Your task to perform on an android device: Do I have any events tomorrow? Image 0: 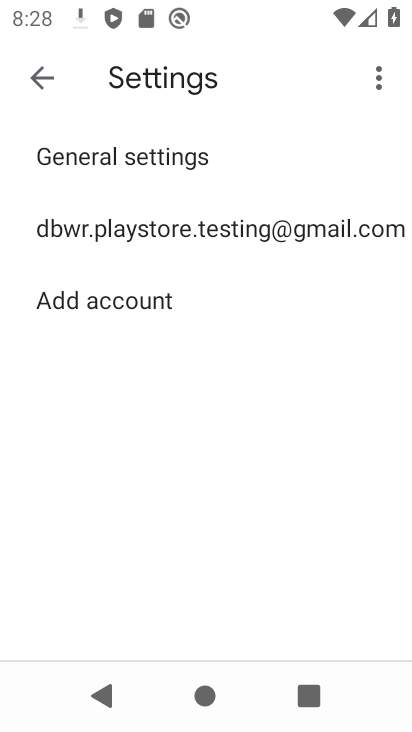
Step 0: press home button
Your task to perform on an android device: Do I have any events tomorrow? Image 1: 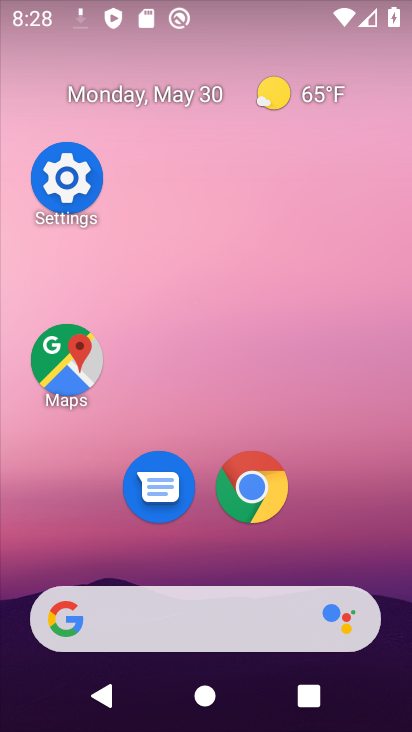
Step 1: drag from (334, 547) to (334, 205)
Your task to perform on an android device: Do I have any events tomorrow? Image 2: 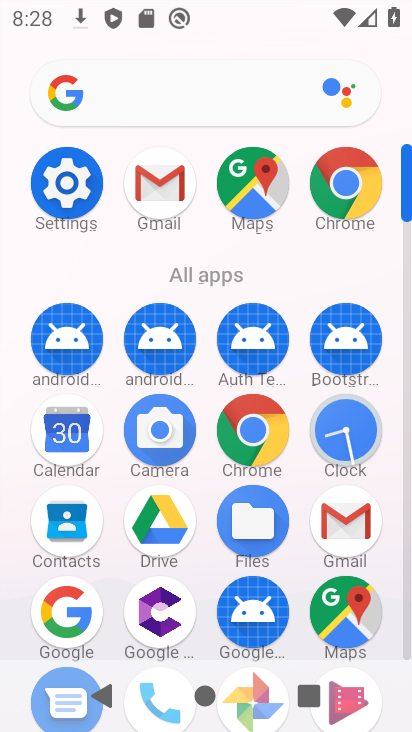
Step 2: drag from (69, 438) to (153, 203)
Your task to perform on an android device: Do I have any events tomorrow? Image 3: 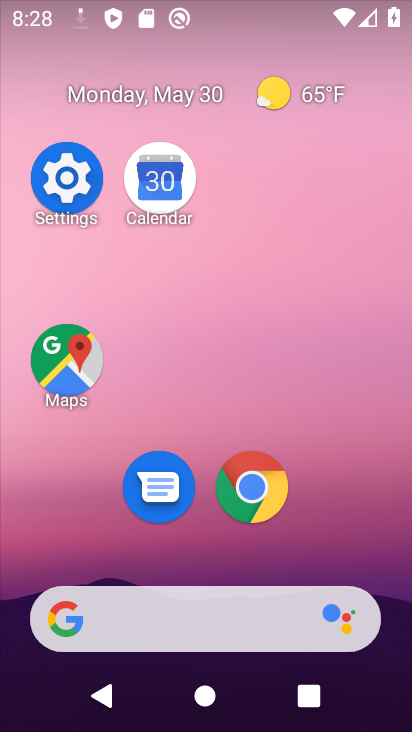
Step 3: click (158, 217)
Your task to perform on an android device: Do I have any events tomorrow? Image 4: 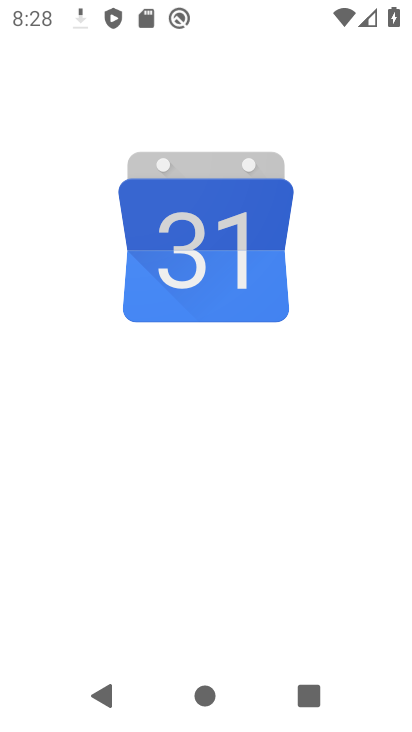
Step 4: click (168, 187)
Your task to perform on an android device: Do I have any events tomorrow? Image 5: 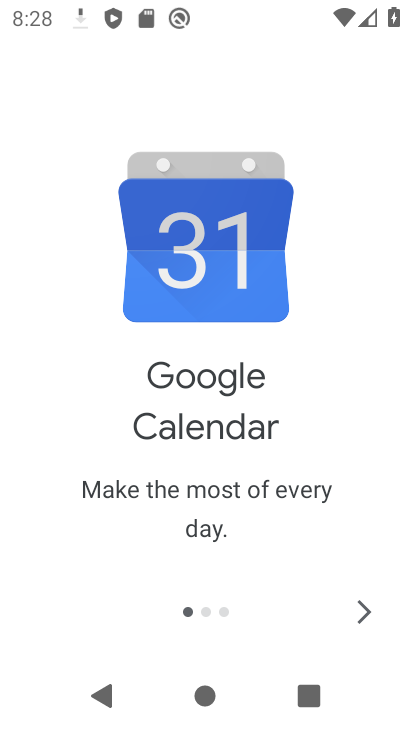
Step 5: click (370, 621)
Your task to perform on an android device: Do I have any events tomorrow? Image 6: 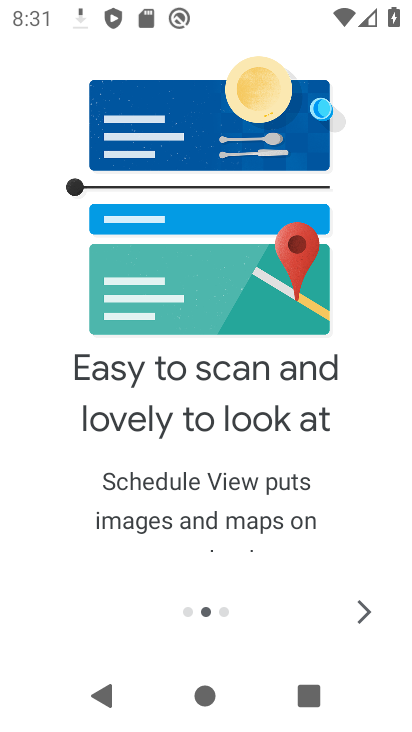
Step 6: click (363, 622)
Your task to perform on an android device: Do I have any events tomorrow? Image 7: 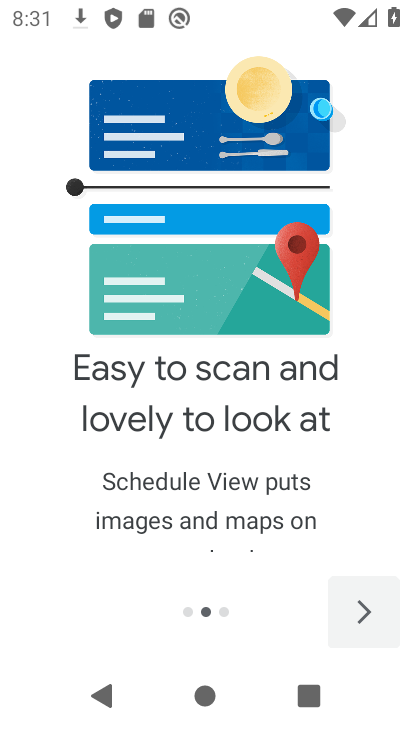
Step 7: click (363, 622)
Your task to perform on an android device: Do I have any events tomorrow? Image 8: 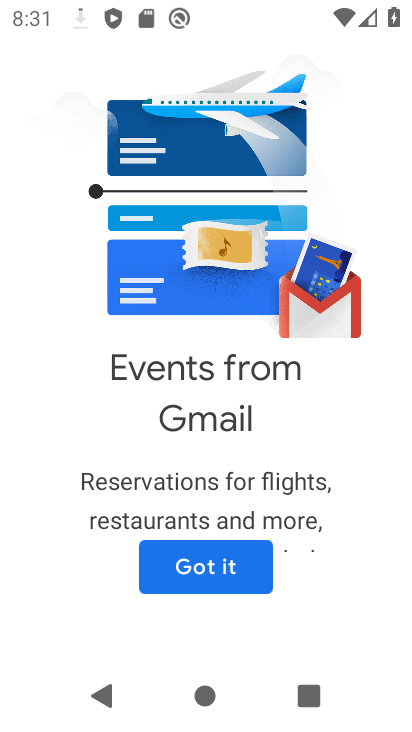
Step 8: click (185, 540)
Your task to perform on an android device: Do I have any events tomorrow? Image 9: 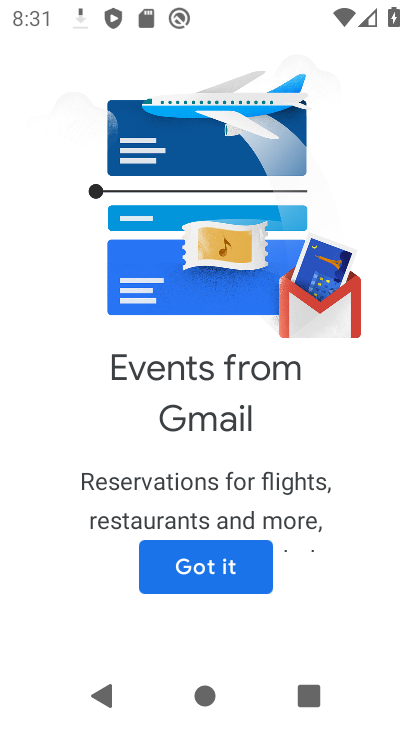
Step 9: click (199, 567)
Your task to perform on an android device: Do I have any events tomorrow? Image 10: 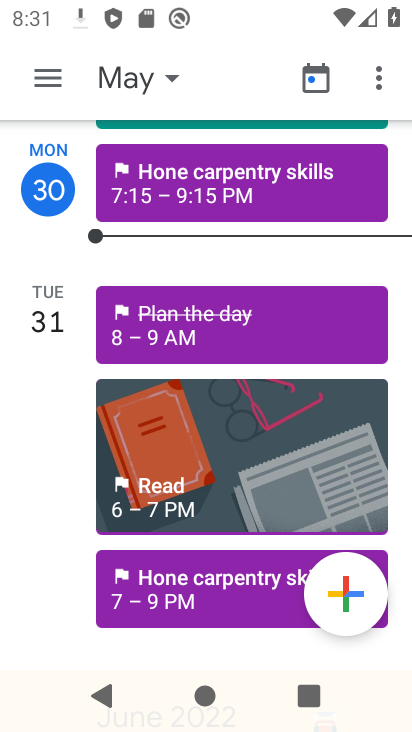
Step 10: click (58, 320)
Your task to perform on an android device: Do I have any events tomorrow? Image 11: 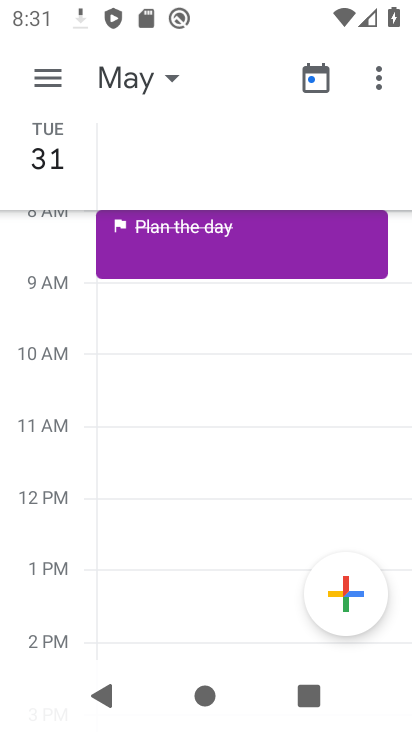
Step 11: task complete